Your task to perform on an android device: Open maps Image 0: 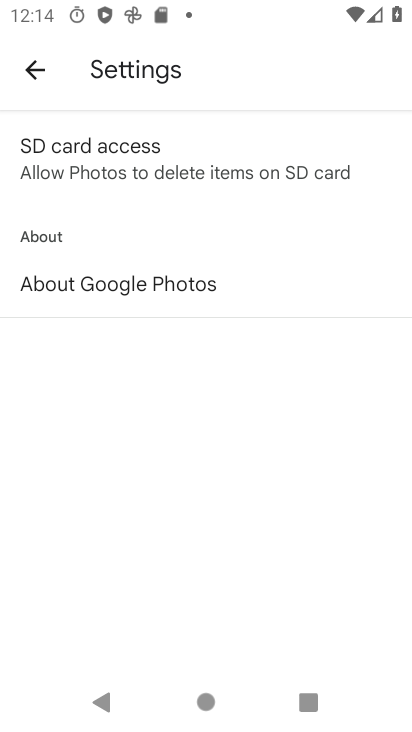
Step 0: press home button
Your task to perform on an android device: Open maps Image 1: 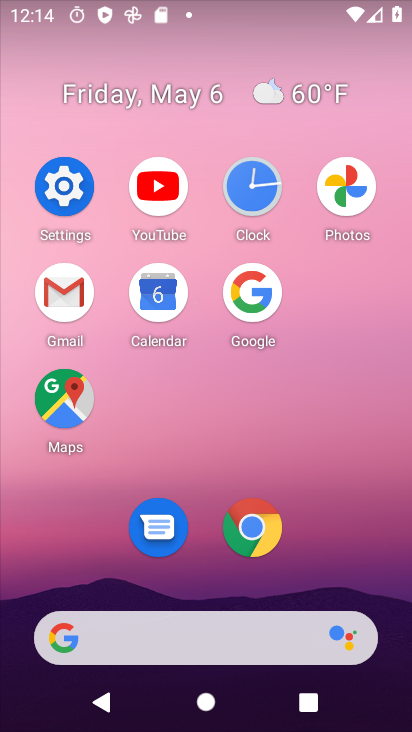
Step 1: click (58, 285)
Your task to perform on an android device: Open maps Image 2: 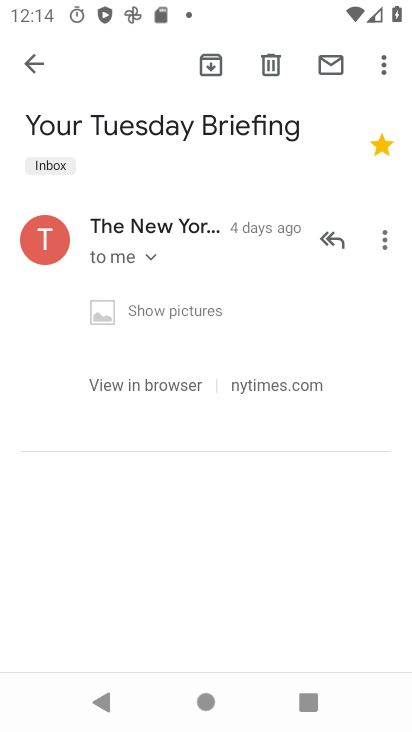
Step 2: task complete